Your task to perform on an android device: turn on bluetooth scan Image 0: 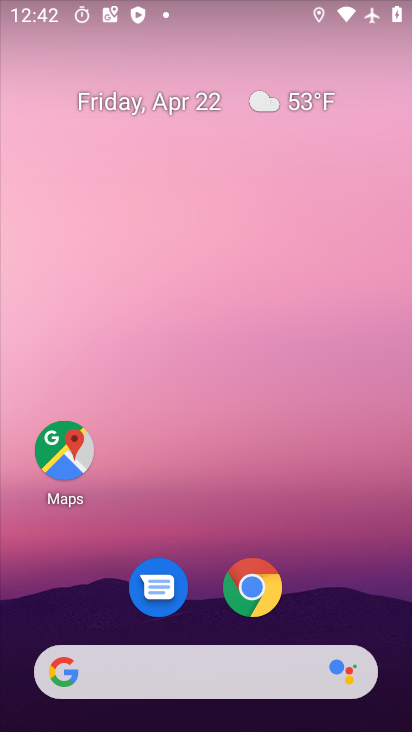
Step 0: drag from (177, 687) to (288, 98)
Your task to perform on an android device: turn on bluetooth scan Image 1: 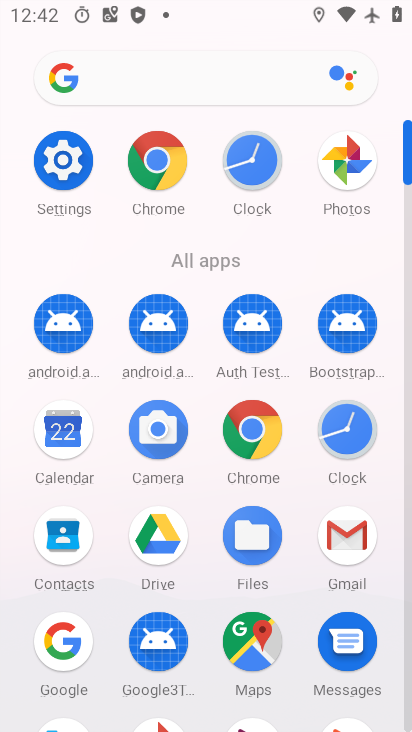
Step 1: click (56, 162)
Your task to perform on an android device: turn on bluetooth scan Image 2: 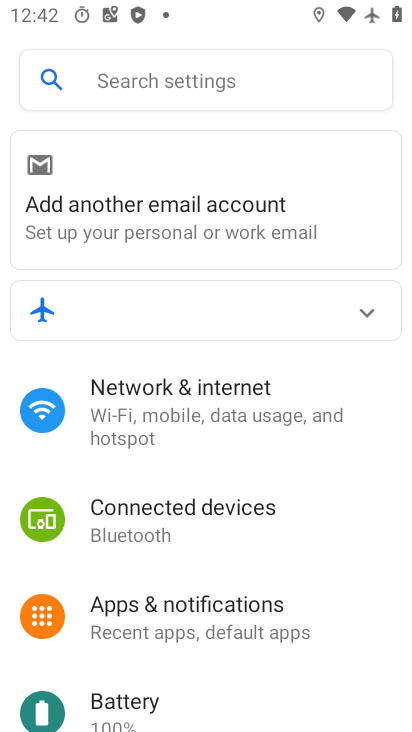
Step 2: drag from (167, 654) to (375, 56)
Your task to perform on an android device: turn on bluetooth scan Image 3: 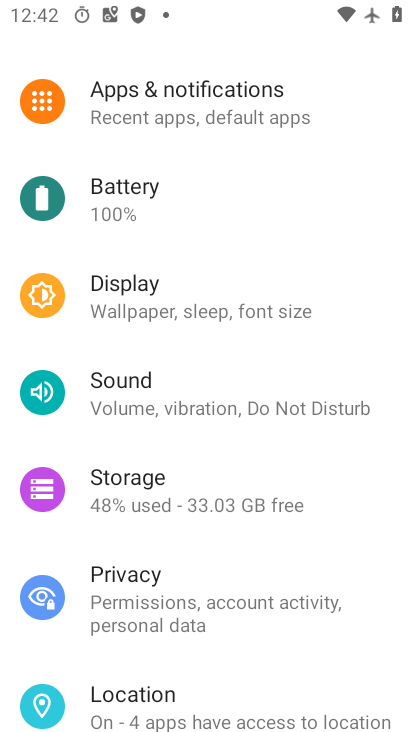
Step 3: drag from (189, 606) to (313, 291)
Your task to perform on an android device: turn on bluetooth scan Image 4: 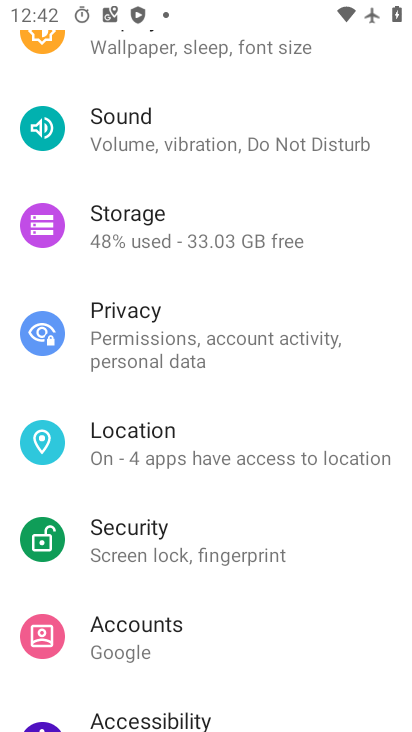
Step 4: click (155, 431)
Your task to perform on an android device: turn on bluetooth scan Image 5: 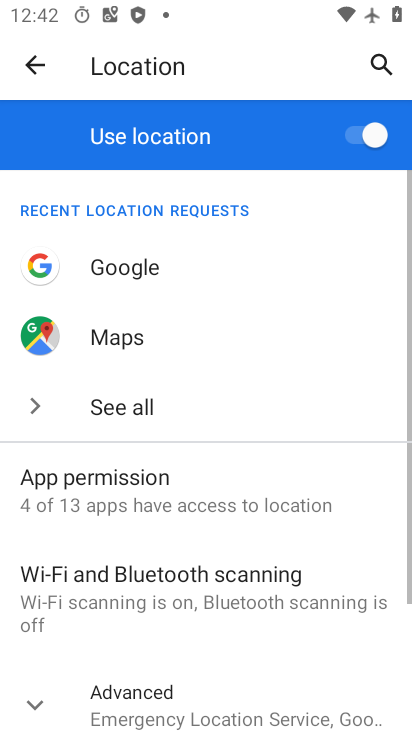
Step 5: click (177, 586)
Your task to perform on an android device: turn on bluetooth scan Image 6: 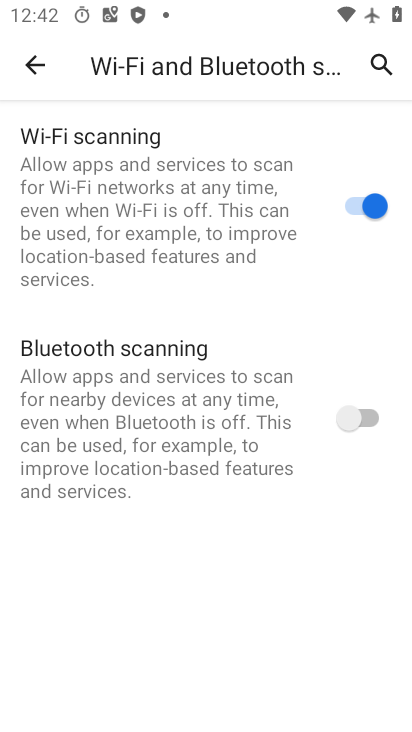
Step 6: click (371, 416)
Your task to perform on an android device: turn on bluetooth scan Image 7: 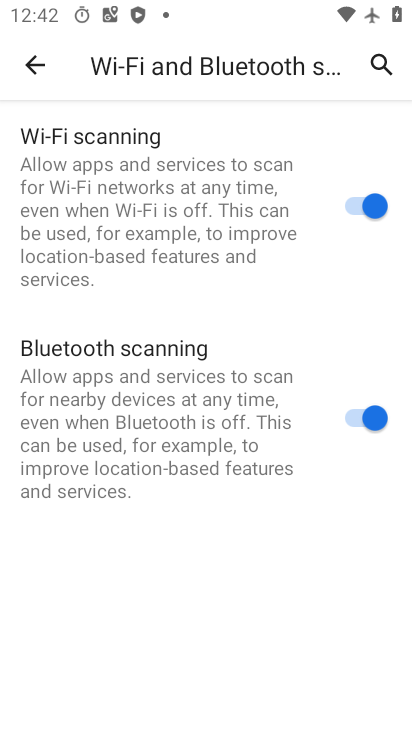
Step 7: task complete